Your task to perform on an android device: turn off notifications settings in the gmail app Image 0: 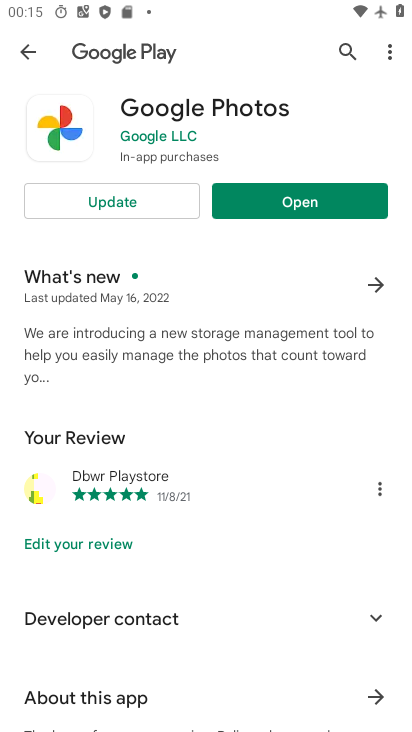
Step 0: press home button
Your task to perform on an android device: turn off notifications settings in the gmail app Image 1: 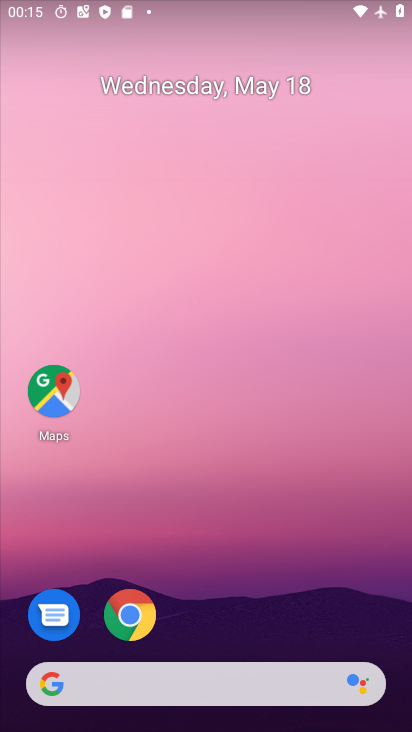
Step 1: drag from (249, 618) to (248, 231)
Your task to perform on an android device: turn off notifications settings in the gmail app Image 2: 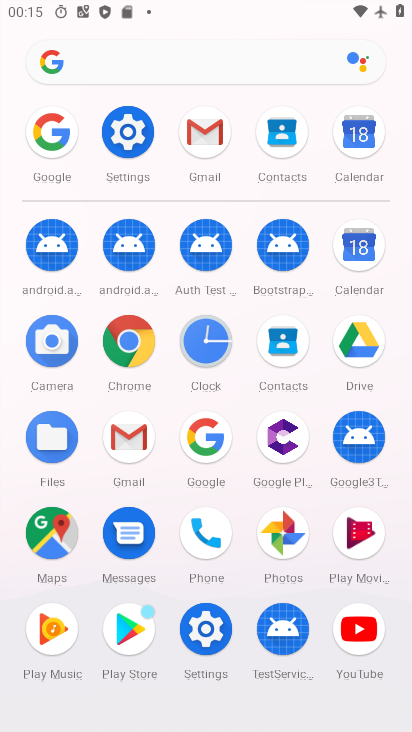
Step 2: click (190, 149)
Your task to perform on an android device: turn off notifications settings in the gmail app Image 3: 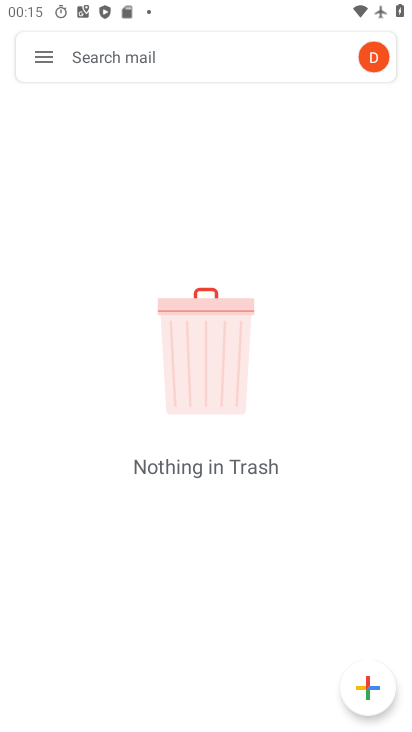
Step 3: click (31, 47)
Your task to perform on an android device: turn off notifications settings in the gmail app Image 4: 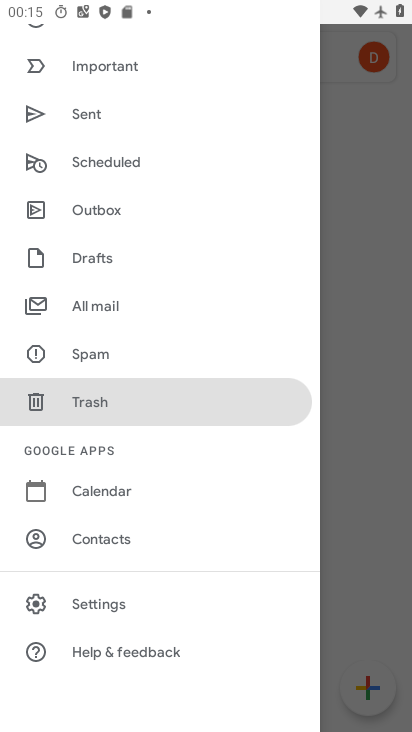
Step 4: click (86, 600)
Your task to perform on an android device: turn off notifications settings in the gmail app Image 5: 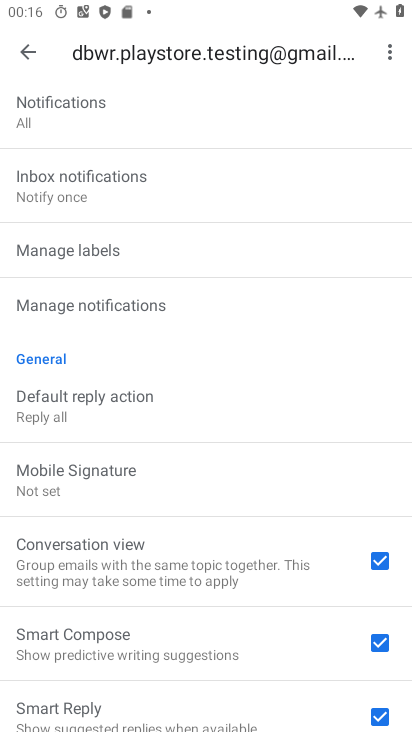
Step 5: click (145, 300)
Your task to perform on an android device: turn off notifications settings in the gmail app Image 6: 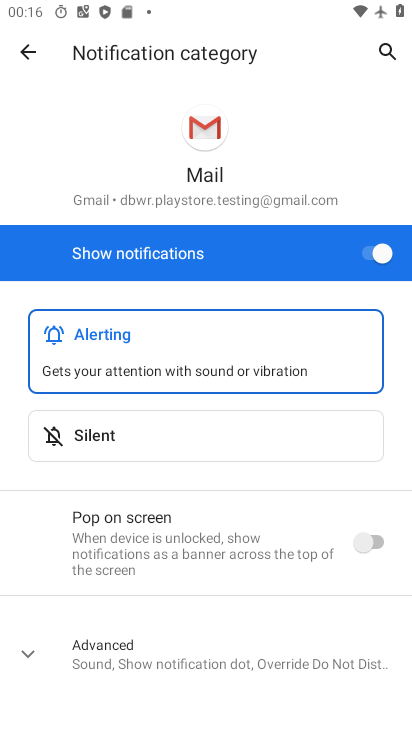
Step 6: drag from (222, 672) to (217, 481)
Your task to perform on an android device: turn off notifications settings in the gmail app Image 7: 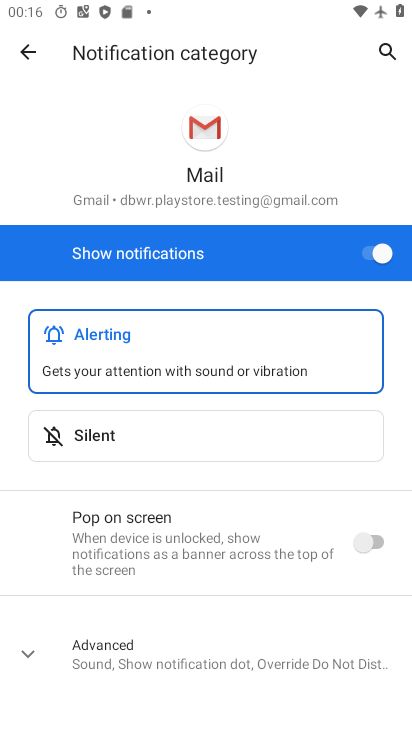
Step 7: click (359, 241)
Your task to perform on an android device: turn off notifications settings in the gmail app Image 8: 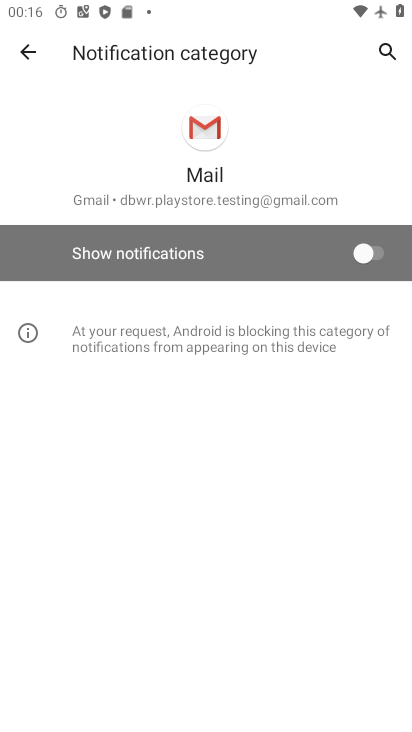
Step 8: task complete